Your task to perform on an android device: Go to accessibility settings Image 0: 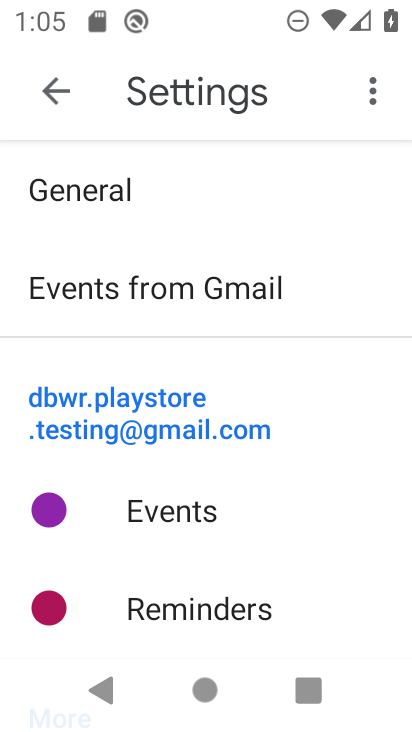
Step 0: click (219, 707)
Your task to perform on an android device: Go to accessibility settings Image 1: 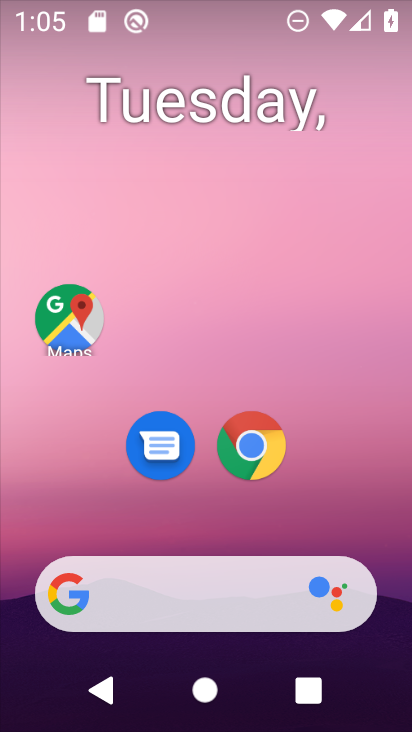
Step 1: click (185, 195)
Your task to perform on an android device: Go to accessibility settings Image 2: 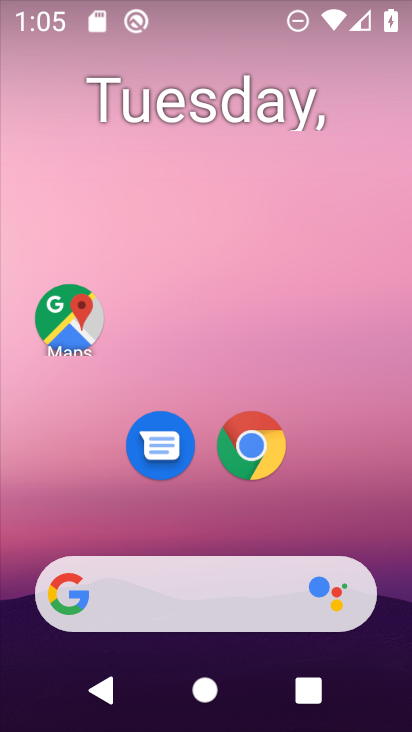
Step 2: drag from (235, 524) to (248, 176)
Your task to perform on an android device: Go to accessibility settings Image 3: 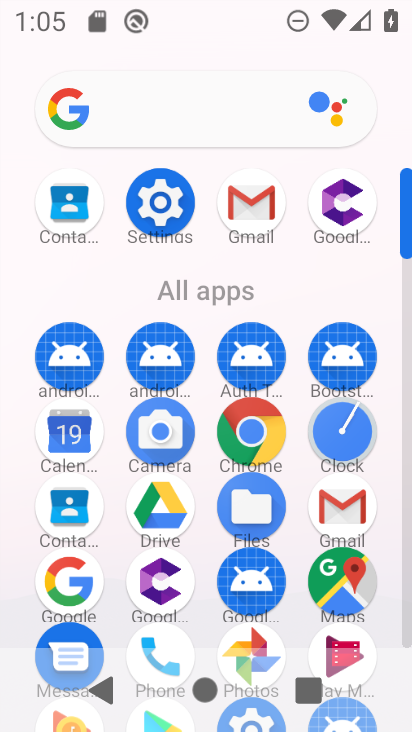
Step 3: click (175, 215)
Your task to perform on an android device: Go to accessibility settings Image 4: 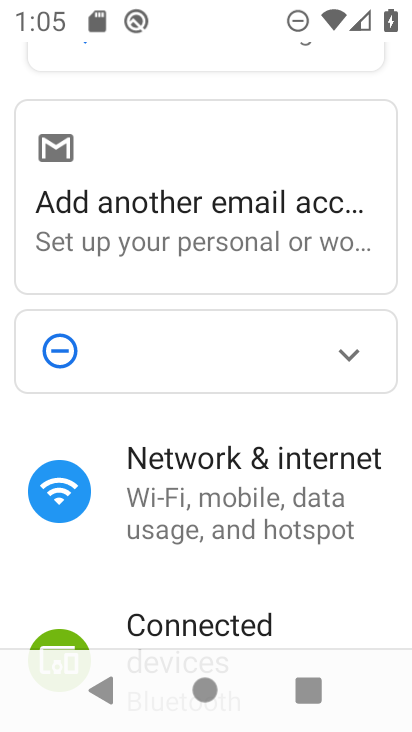
Step 4: drag from (220, 491) to (212, 278)
Your task to perform on an android device: Go to accessibility settings Image 5: 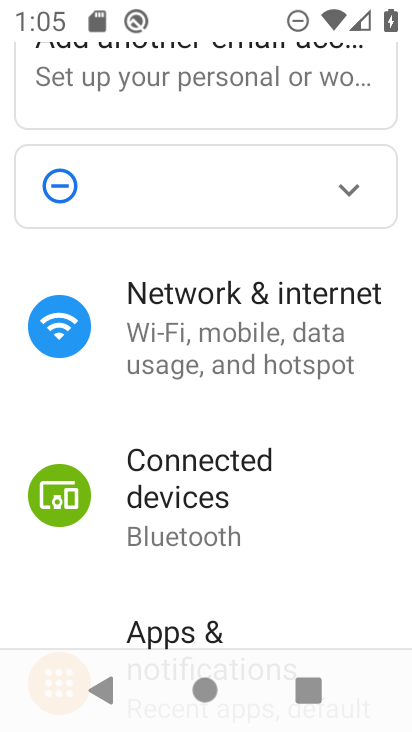
Step 5: drag from (173, 529) to (217, 281)
Your task to perform on an android device: Go to accessibility settings Image 6: 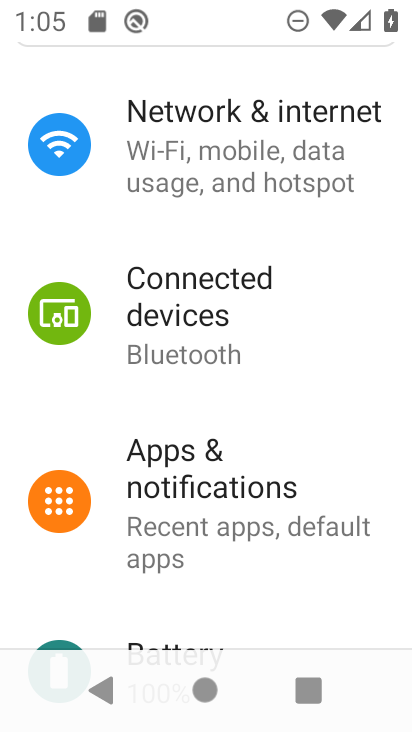
Step 6: drag from (239, 527) to (231, 334)
Your task to perform on an android device: Go to accessibility settings Image 7: 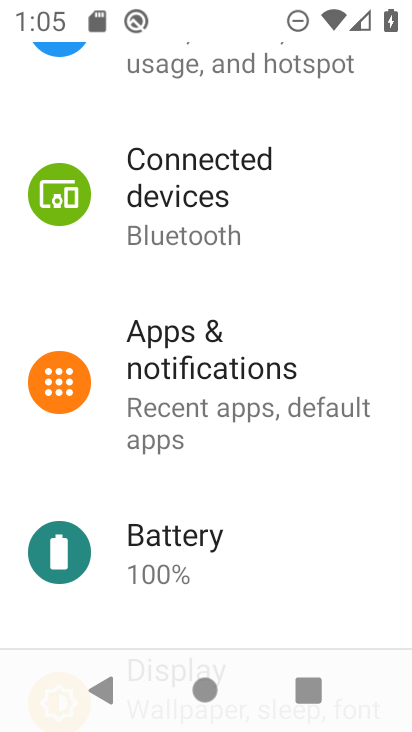
Step 7: drag from (239, 565) to (250, 306)
Your task to perform on an android device: Go to accessibility settings Image 8: 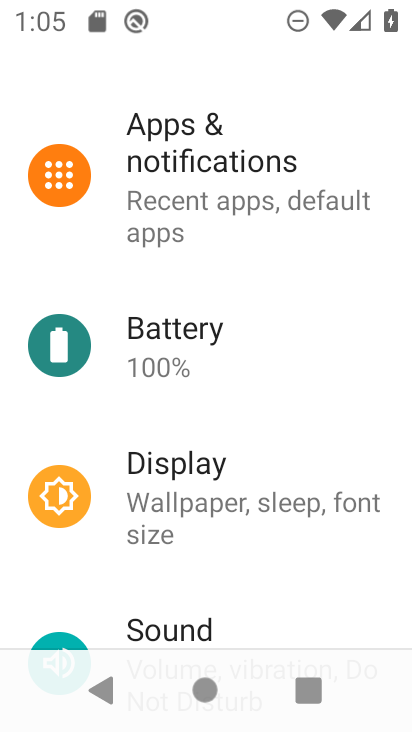
Step 8: drag from (233, 508) to (231, 309)
Your task to perform on an android device: Go to accessibility settings Image 9: 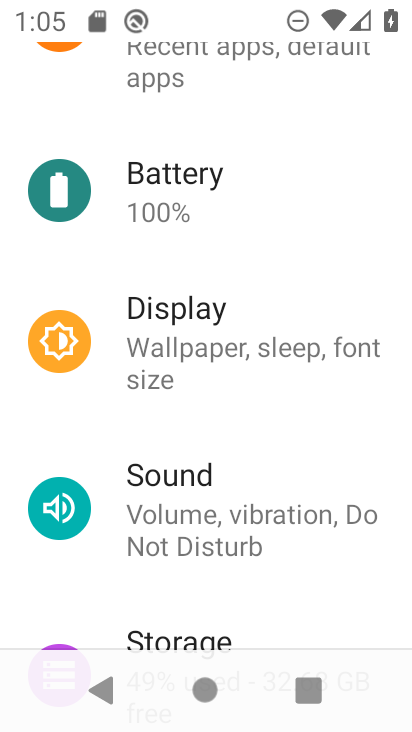
Step 9: drag from (223, 543) to (223, 331)
Your task to perform on an android device: Go to accessibility settings Image 10: 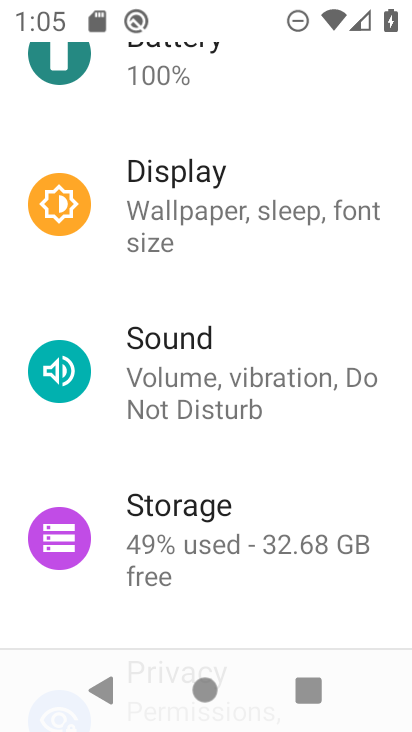
Step 10: drag from (246, 541) to (250, 210)
Your task to perform on an android device: Go to accessibility settings Image 11: 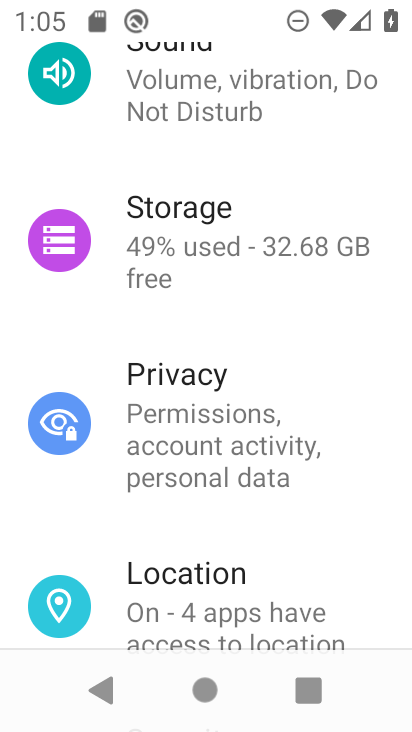
Step 11: drag from (243, 510) to (231, 236)
Your task to perform on an android device: Go to accessibility settings Image 12: 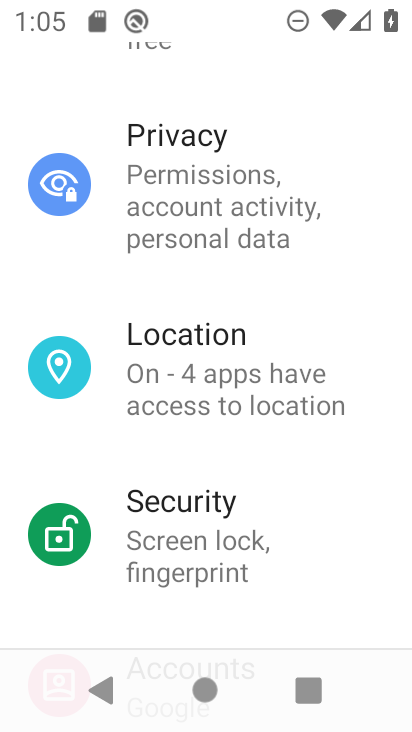
Step 12: drag from (293, 503) to (241, 236)
Your task to perform on an android device: Go to accessibility settings Image 13: 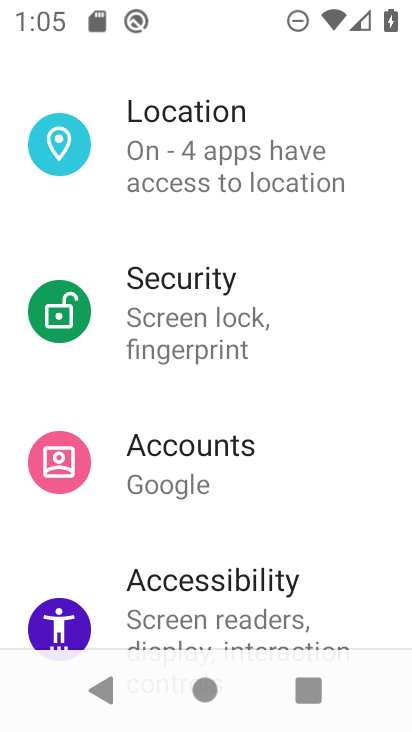
Step 13: click (275, 601)
Your task to perform on an android device: Go to accessibility settings Image 14: 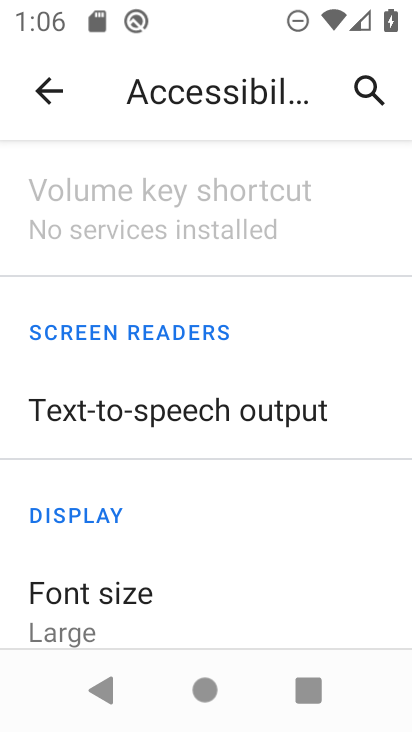
Step 14: task complete